Your task to perform on an android device: delete the emails in spam in the gmail app Image 0: 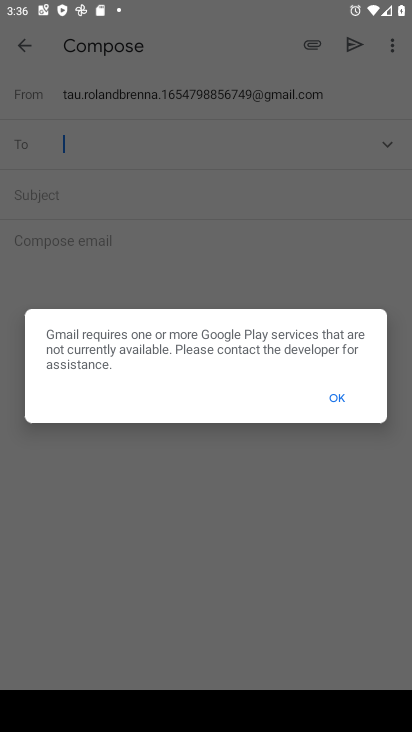
Step 0: click (339, 396)
Your task to perform on an android device: delete the emails in spam in the gmail app Image 1: 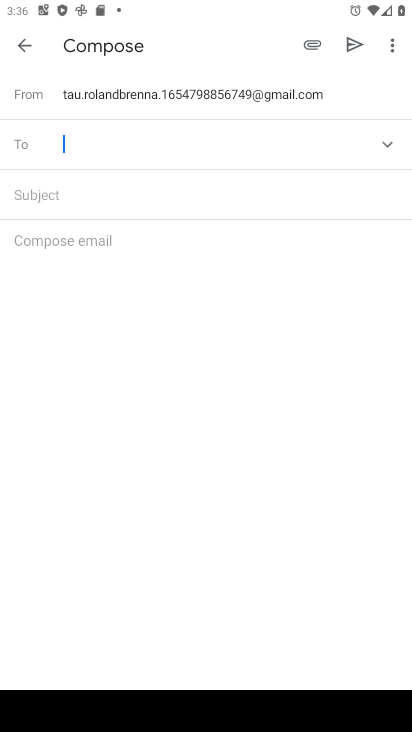
Step 1: click (27, 56)
Your task to perform on an android device: delete the emails in spam in the gmail app Image 2: 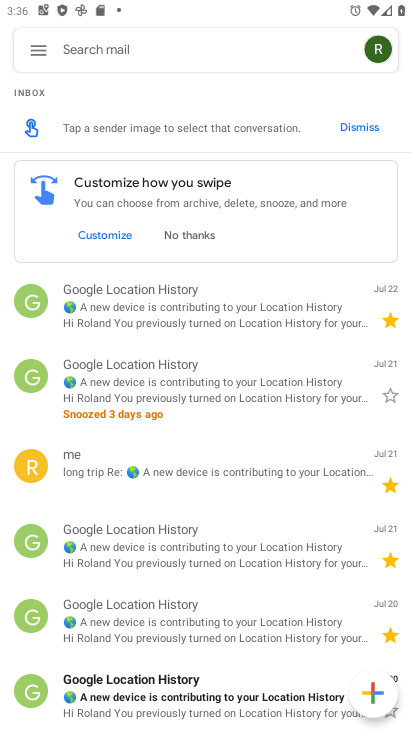
Step 2: task complete